Your task to perform on an android device: Search for Mexican restaurants on Maps Image 0: 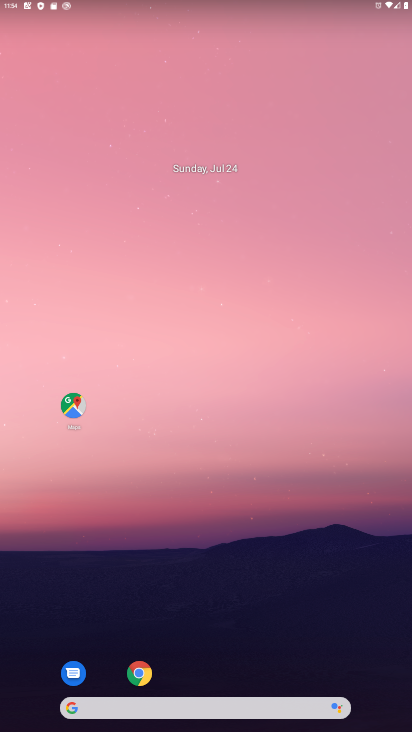
Step 0: drag from (259, 505) to (229, 65)
Your task to perform on an android device: Search for Mexican restaurants on Maps Image 1: 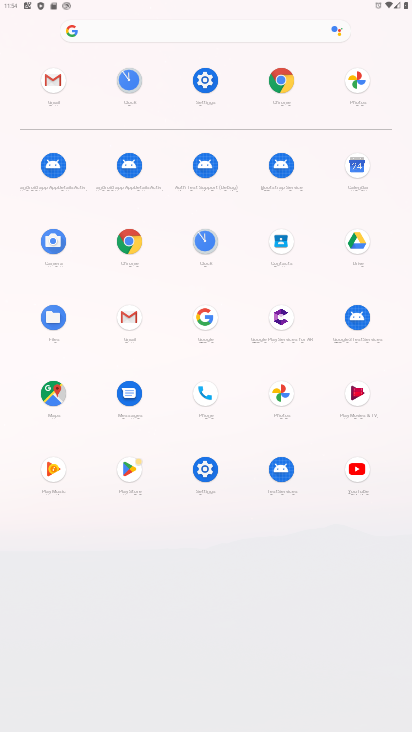
Step 1: click (59, 387)
Your task to perform on an android device: Search for Mexican restaurants on Maps Image 2: 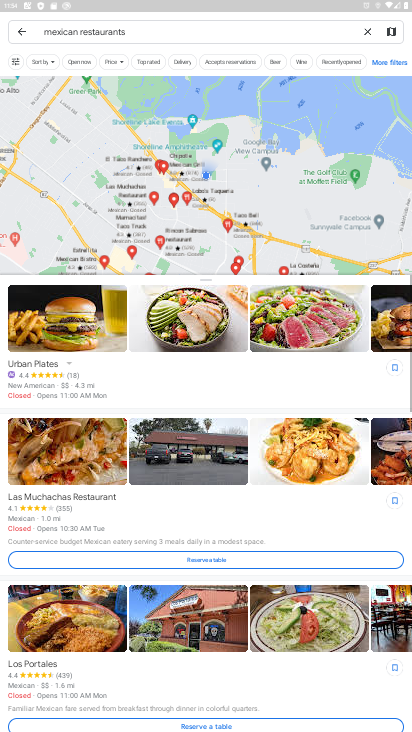
Step 2: task complete